Your task to perform on an android device: What's the weather going to be this weekend? Image 0: 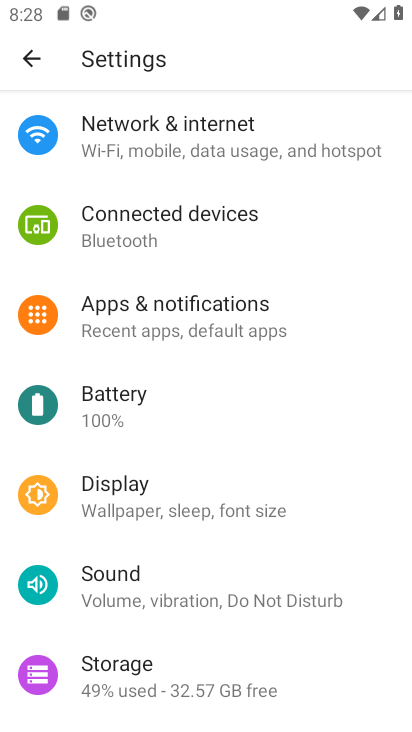
Step 0: press home button
Your task to perform on an android device: What's the weather going to be this weekend? Image 1: 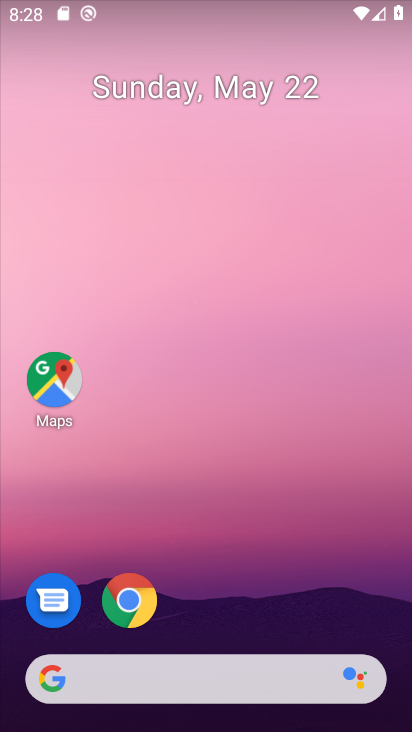
Step 1: drag from (254, 652) to (224, 233)
Your task to perform on an android device: What's the weather going to be this weekend? Image 2: 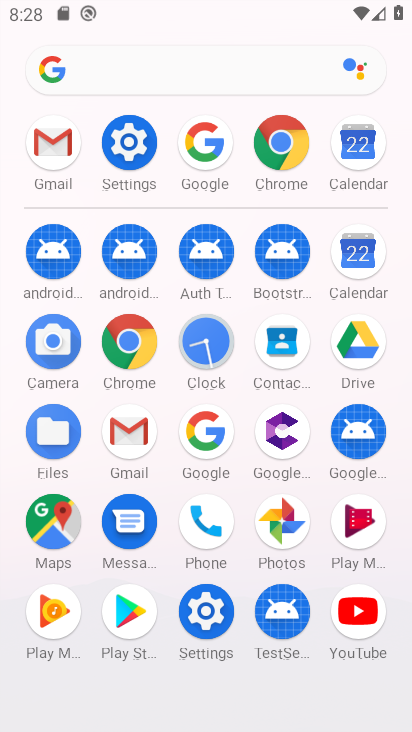
Step 2: click (210, 433)
Your task to perform on an android device: What's the weather going to be this weekend? Image 3: 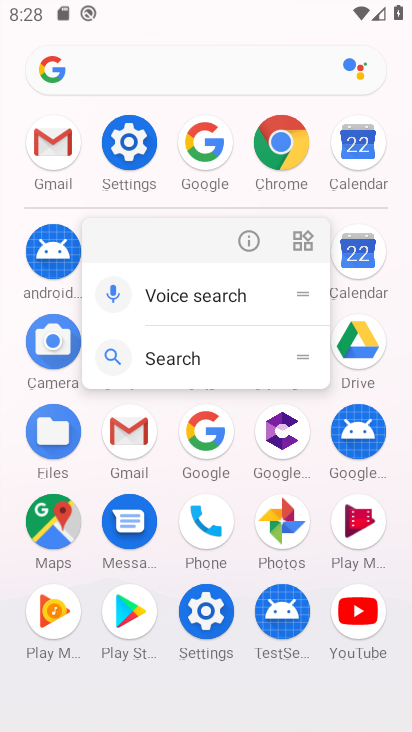
Step 3: click (210, 433)
Your task to perform on an android device: What's the weather going to be this weekend? Image 4: 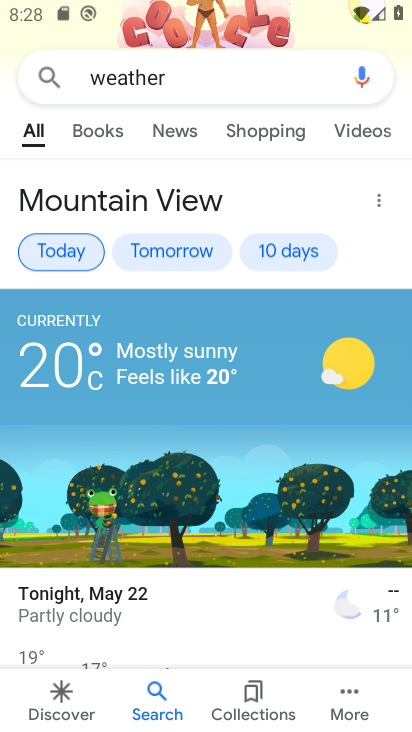
Step 4: click (331, 251)
Your task to perform on an android device: What's the weather going to be this weekend? Image 5: 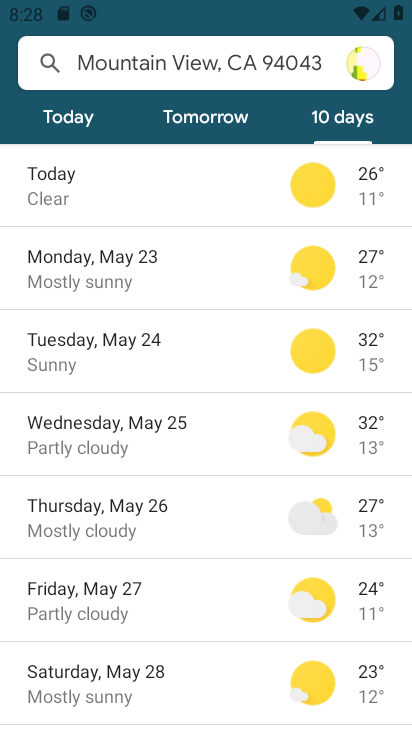
Step 5: task complete